Your task to perform on an android device: check android version Image 0: 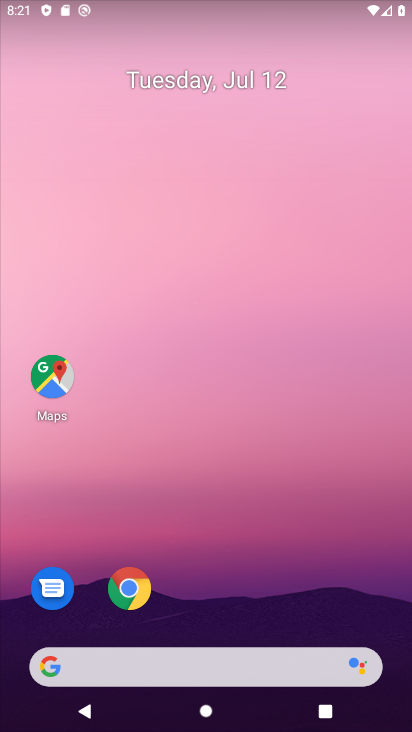
Step 0: drag from (229, 628) to (295, 66)
Your task to perform on an android device: check android version Image 1: 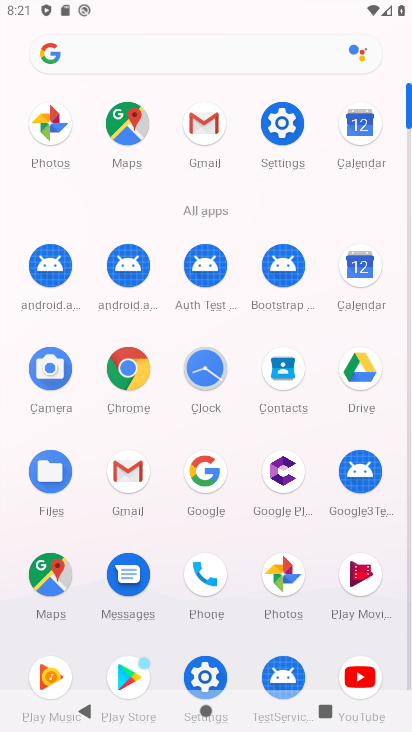
Step 1: click (207, 673)
Your task to perform on an android device: check android version Image 2: 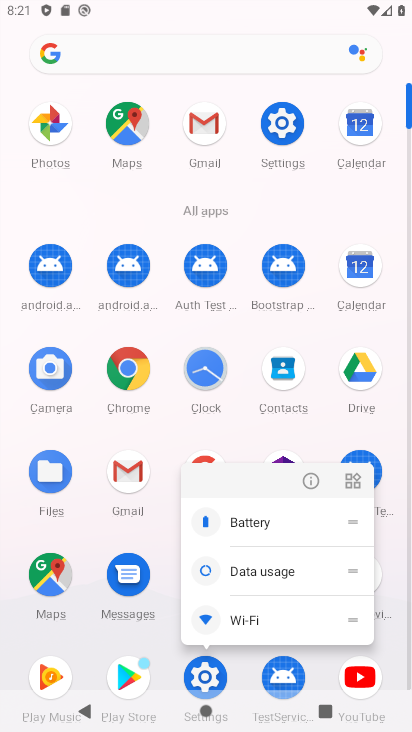
Step 2: click (207, 673)
Your task to perform on an android device: check android version Image 3: 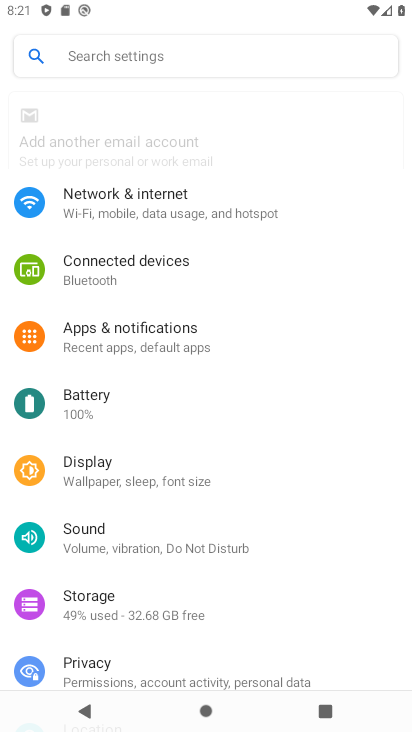
Step 3: drag from (209, 659) to (304, 24)
Your task to perform on an android device: check android version Image 4: 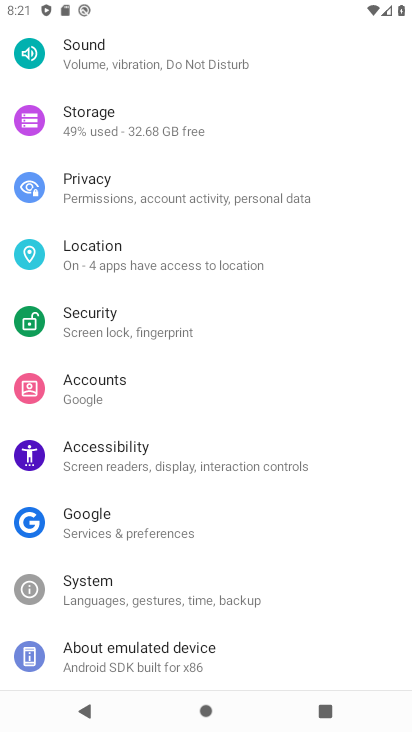
Step 4: drag from (155, 586) to (269, 77)
Your task to perform on an android device: check android version Image 5: 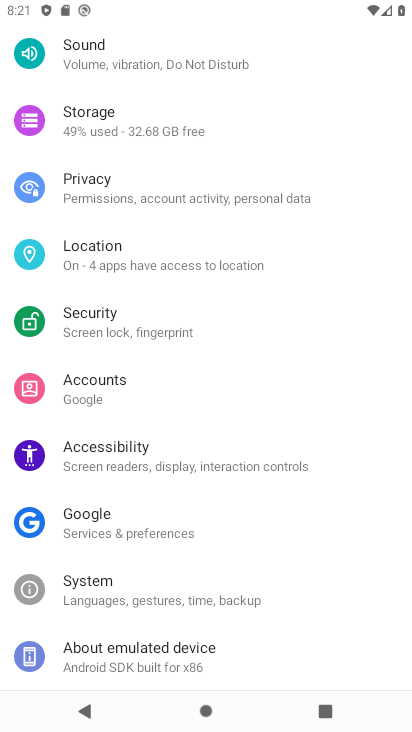
Step 5: click (208, 664)
Your task to perform on an android device: check android version Image 6: 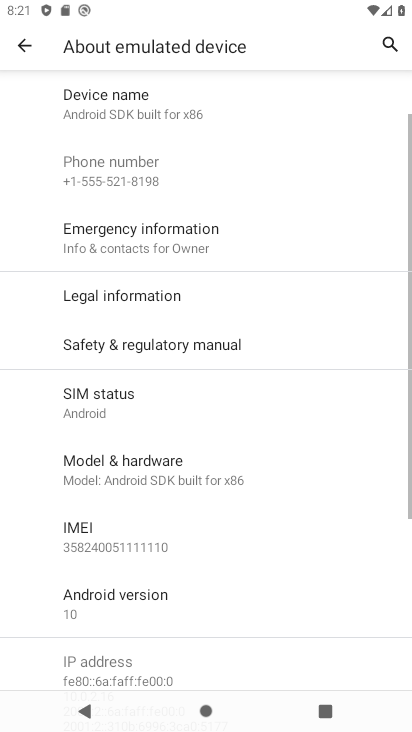
Step 6: click (154, 603)
Your task to perform on an android device: check android version Image 7: 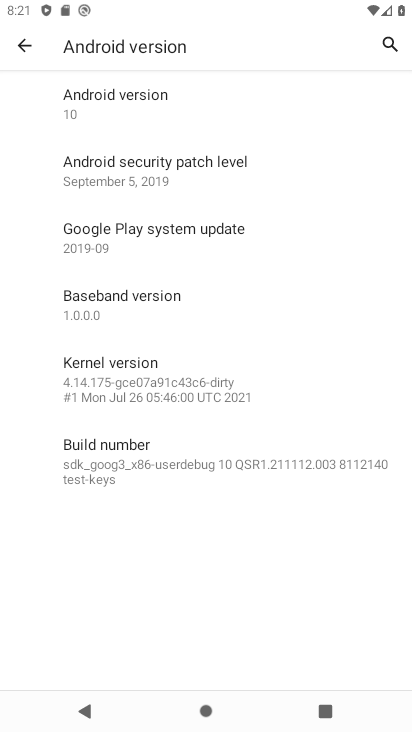
Step 7: task complete